Your task to perform on an android device: Go to settings Image 0: 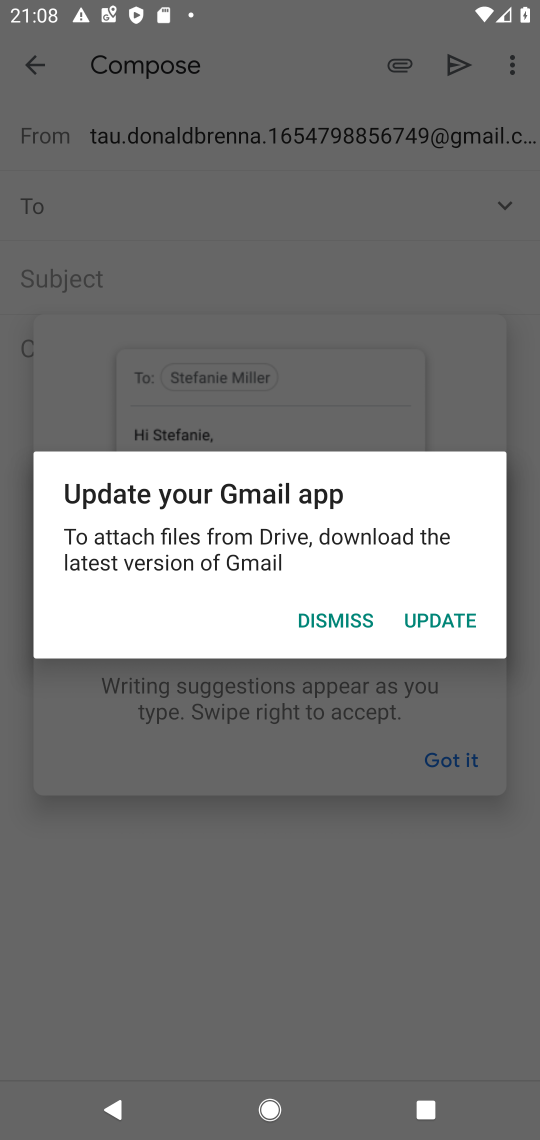
Step 0: press home button
Your task to perform on an android device: Go to settings Image 1: 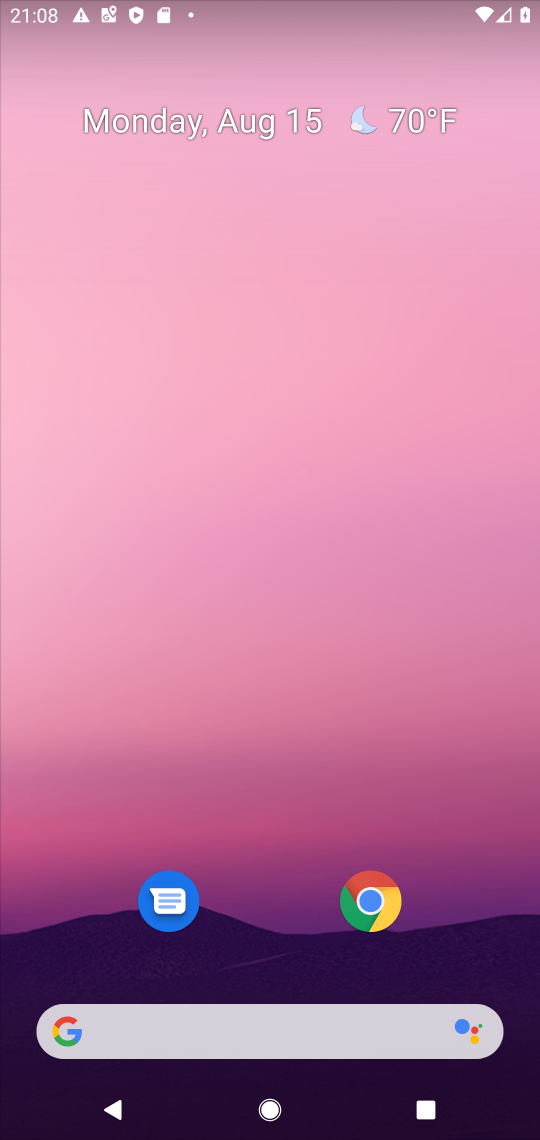
Step 1: drag from (255, 750) to (215, 38)
Your task to perform on an android device: Go to settings Image 2: 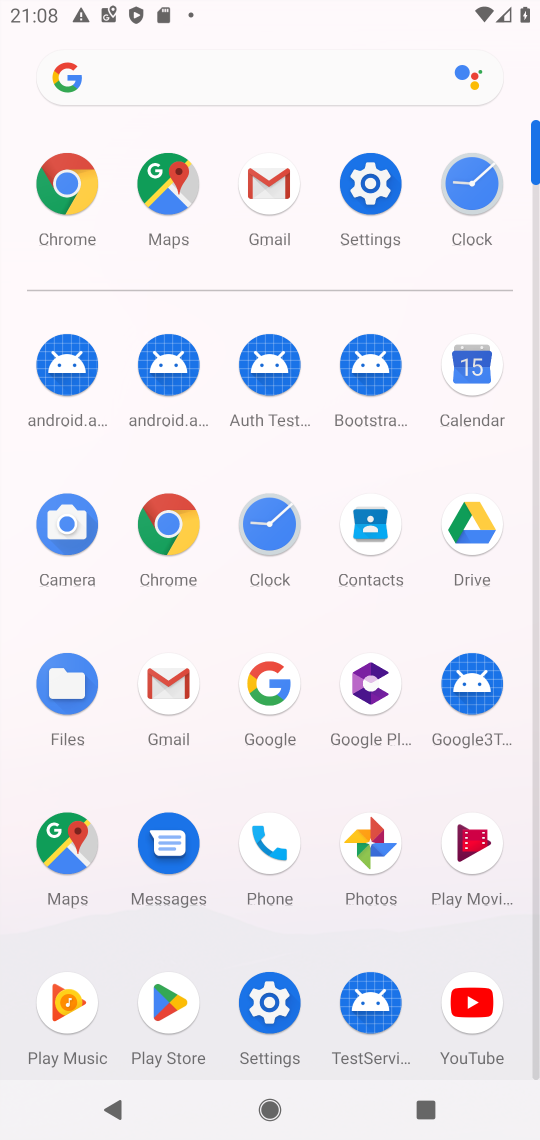
Step 2: click (369, 221)
Your task to perform on an android device: Go to settings Image 3: 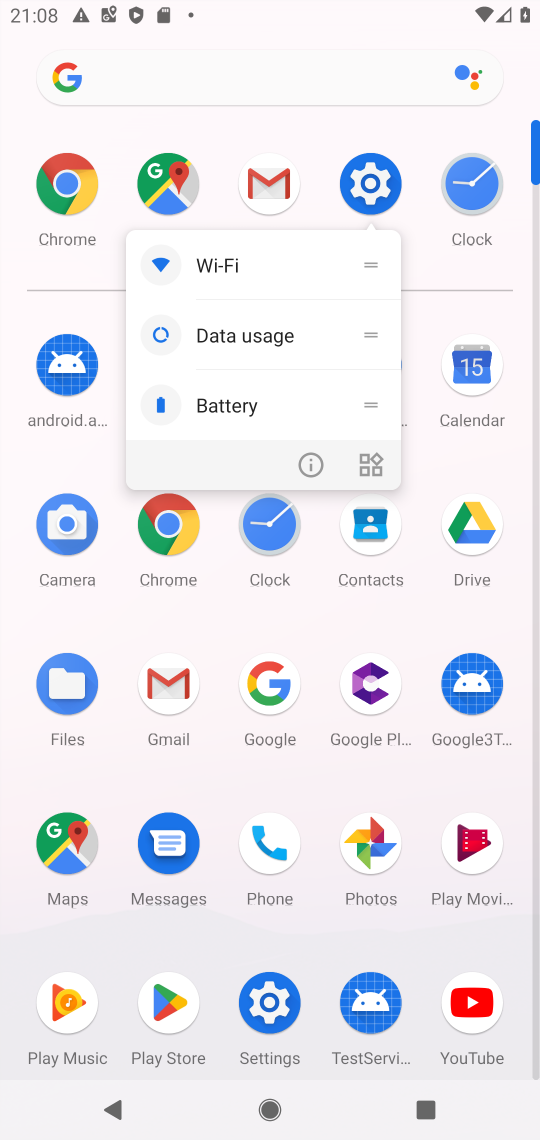
Step 3: click (394, 165)
Your task to perform on an android device: Go to settings Image 4: 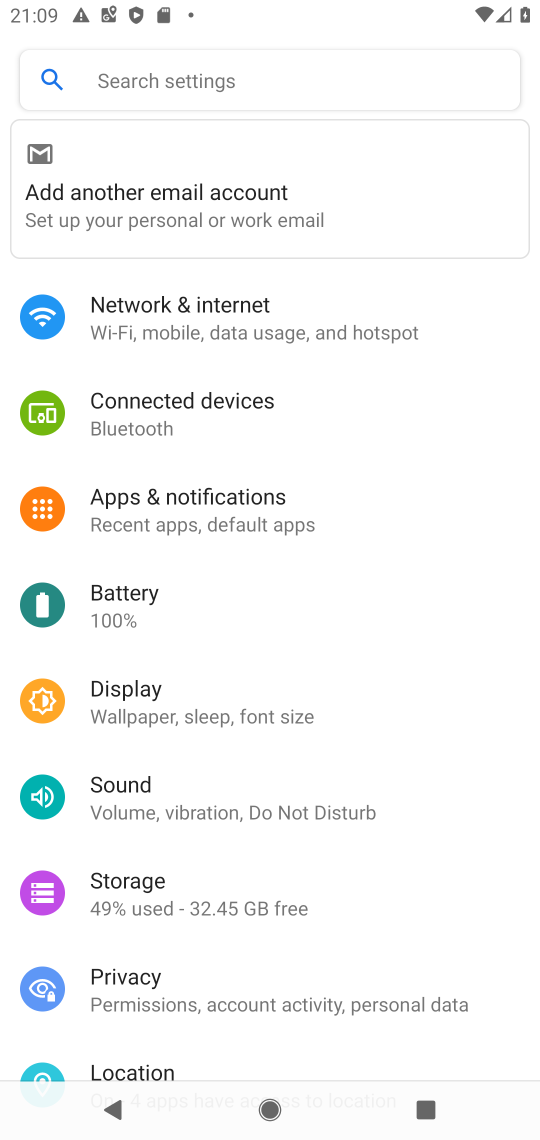
Step 4: task complete